Your task to perform on an android device: What's a good restaurant in Seattle? Image 0: 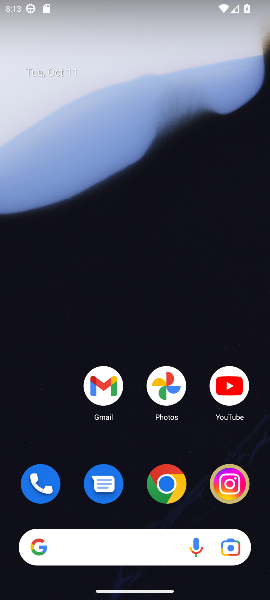
Step 0: click (170, 483)
Your task to perform on an android device: What's a good restaurant in Seattle? Image 1: 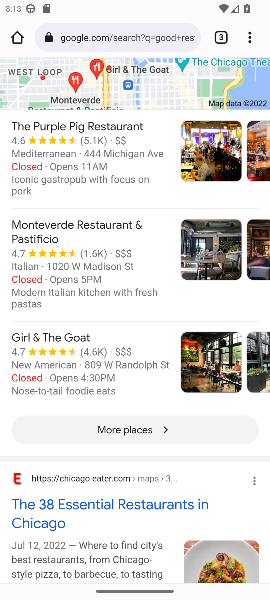
Step 1: click (111, 39)
Your task to perform on an android device: What's a good restaurant in Seattle? Image 2: 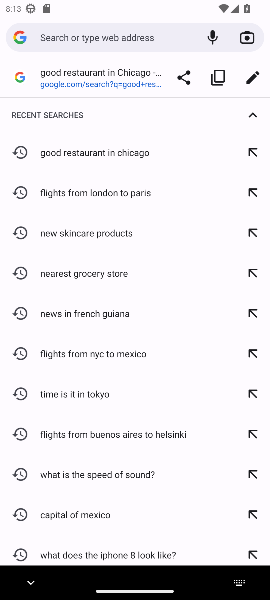
Step 2: type "good restaurant in Seattle"
Your task to perform on an android device: What's a good restaurant in Seattle? Image 3: 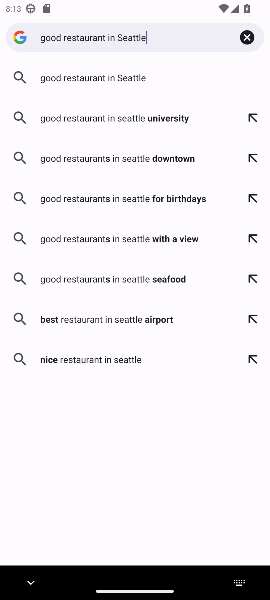
Step 3: click (105, 77)
Your task to perform on an android device: What's a good restaurant in Seattle? Image 4: 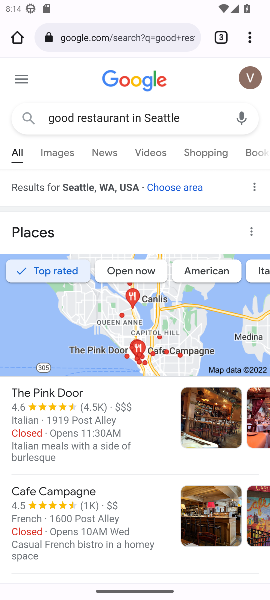
Step 4: task complete